Your task to perform on an android device: turn off sleep mode Image 0: 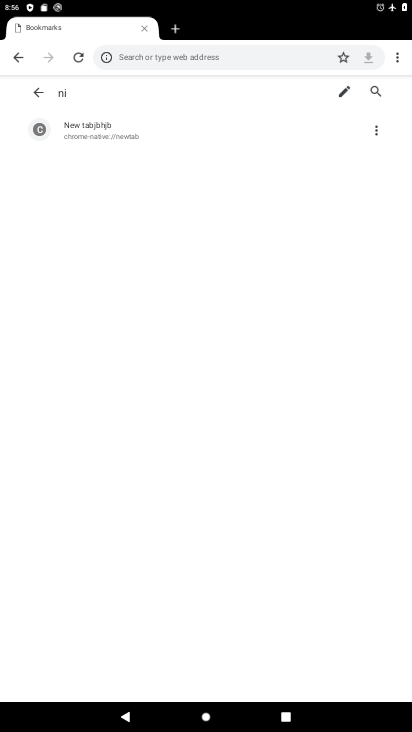
Step 0: press home button
Your task to perform on an android device: turn off sleep mode Image 1: 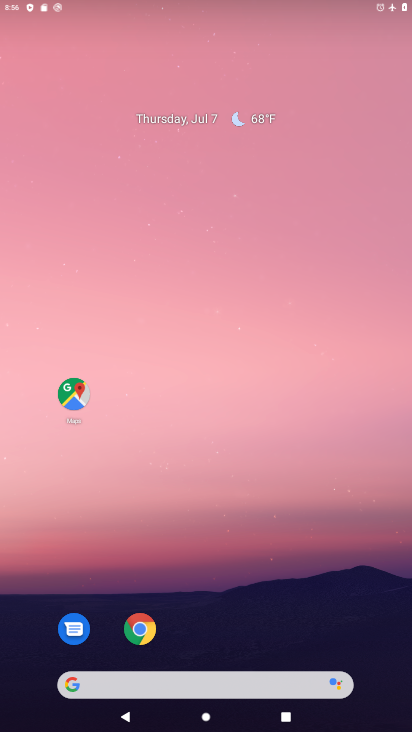
Step 1: drag from (243, 640) to (271, 87)
Your task to perform on an android device: turn off sleep mode Image 2: 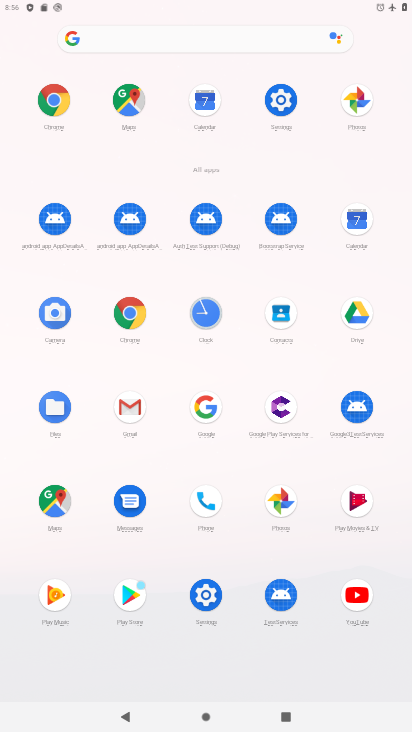
Step 2: click (271, 99)
Your task to perform on an android device: turn off sleep mode Image 3: 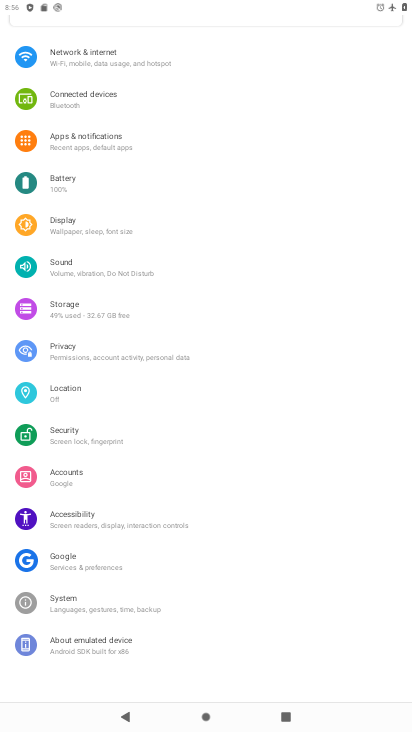
Step 3: click (121, 229)
Your task to perform on an android device: turn off sleep mode Image 4: 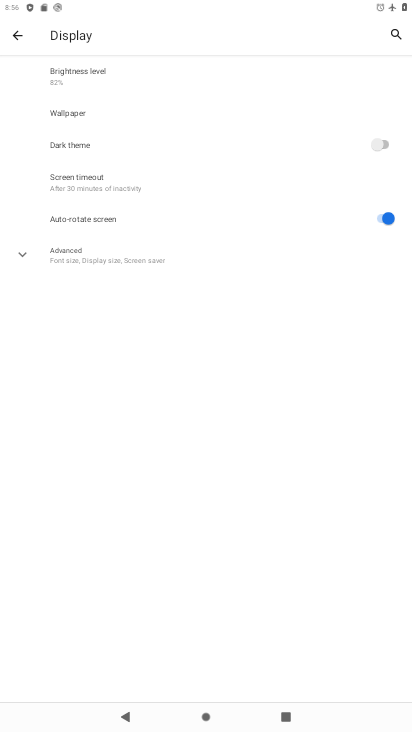
Step 4: click (90, 192)
Your task to perform on an android device: turn off sleep mode Image 5: 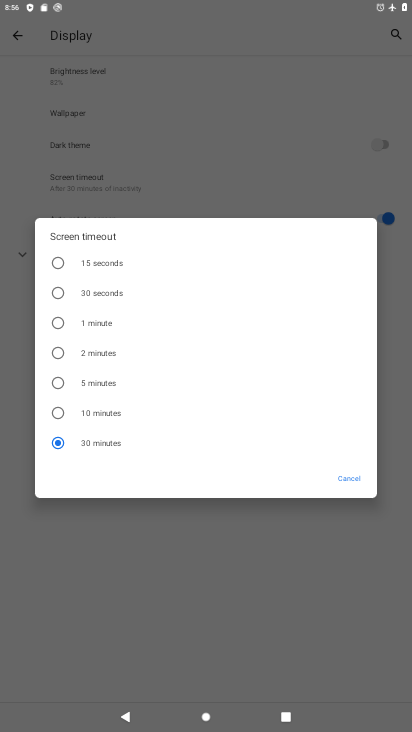
Step 5: task complete